Your task to perform on an android device: toggle notifications settings in the gmail app Image 0: 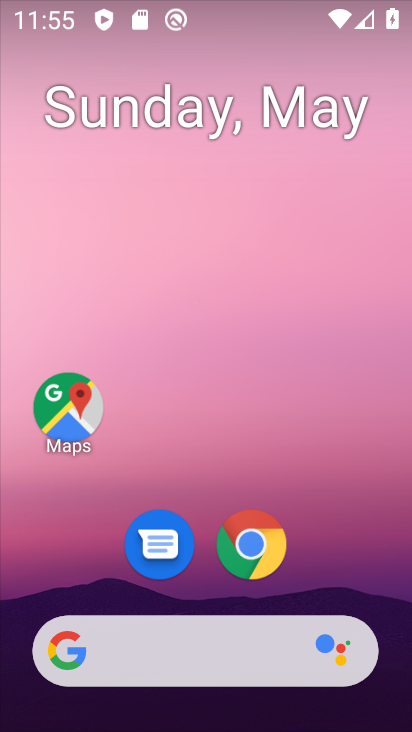
Step 0: drag from (353, 614) to (289, 0)
Your task to perform on an android device: toggle notifications settings in the gmail app Image 1: 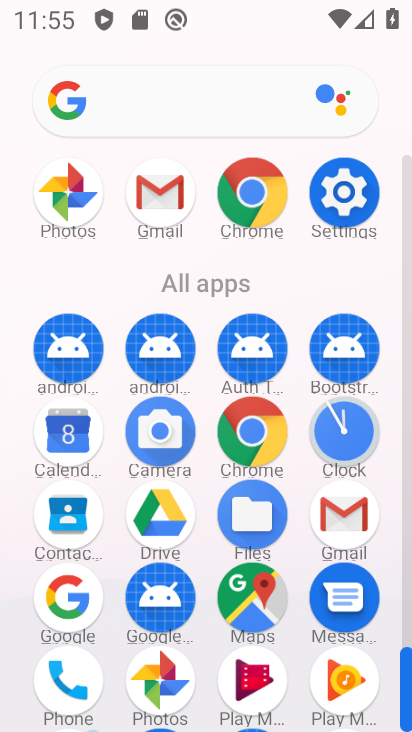
Step 1: click (351, 502)
Your task to perform on an android device: toggle notifications settings in the gmail app Image 2: 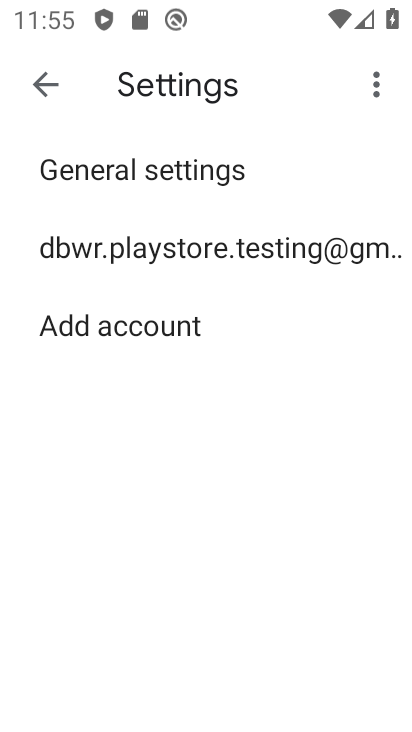
Step 2: click (166, 186)
Your task to perform on an android device: toggle notifications settings in the gmail app Image 3: 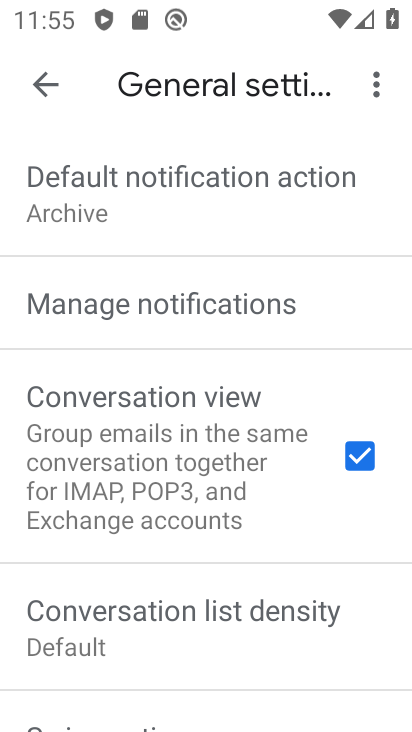
Step 3: click (297, 679)
Your task to perform on an android device: toggle notifications settings in the gmail app Image 4: 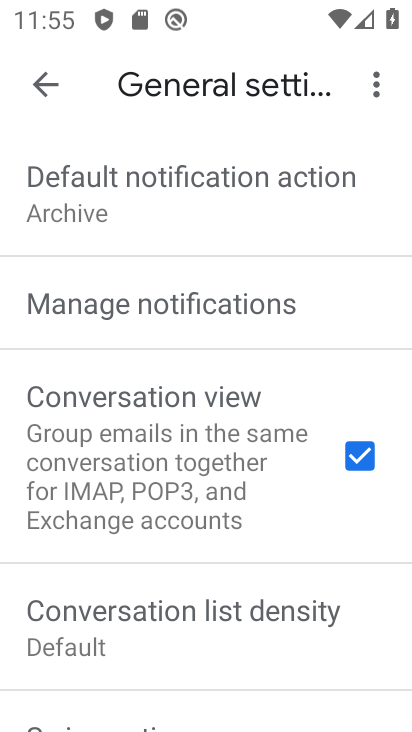
Step 4: click (174, 307)
Your task to perform on an android device: toggle notifications settings in the gmail app Image 5: 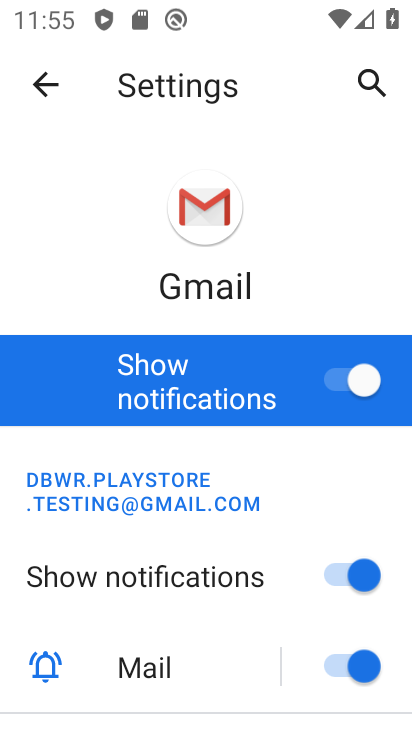
Step 5: drag from (248, 683) to (207, 144)
Your task to perform on an android device: toggle notifications settings in the gmail app Image 6: 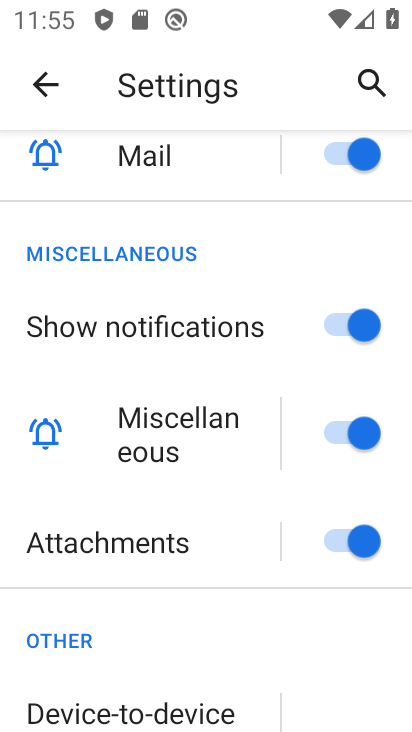
Step 6: drag from (209, 223) to (293, 722)
Your task to perform on an android device: toggle notifications settings in the gmail app Image 7: 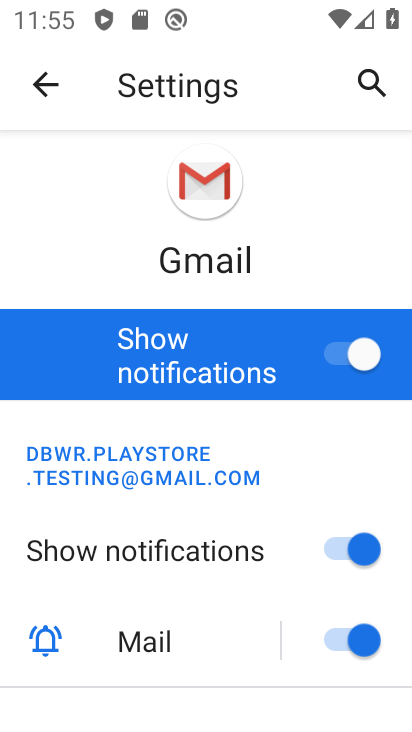
Step 7: click (334, 349)
Your task to perform on an android device: toggle notifications settings in the gmail app Image 8: 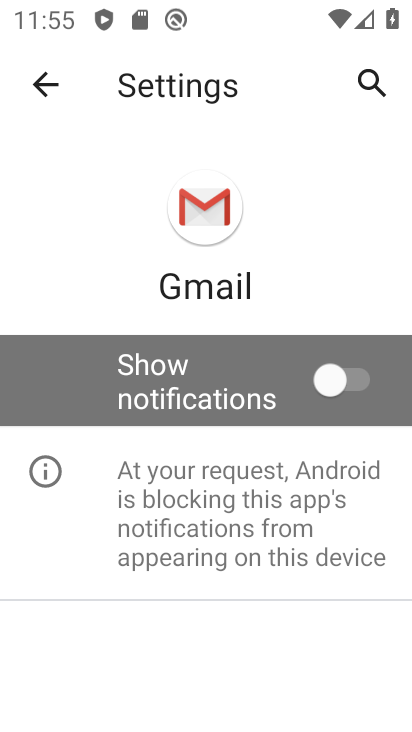
Step 8: task complete